Your task to perform on an android device: Open Google Chrome and open the bookmarks view Image 0: 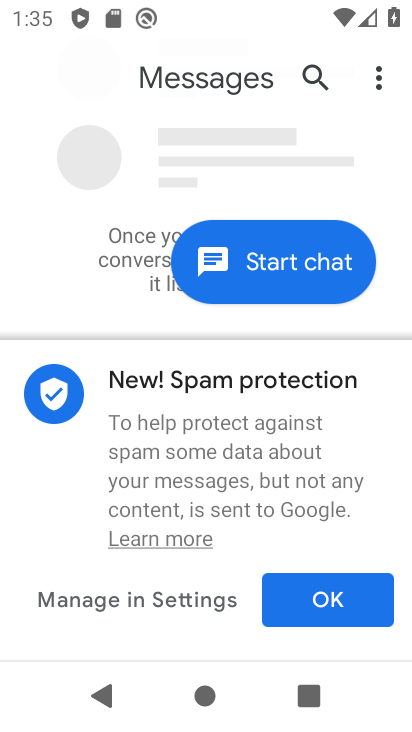
Step 0: press home button
Your task to perform on an android device: Open Google Chrome and open the bookmarks view Image 1: 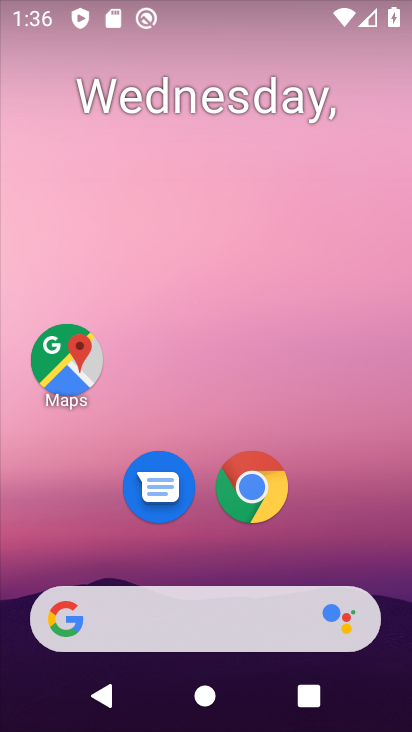
Step 1: click (247, 488)
Your task to perform on an android device: Open Google Chrome and open the bookmarks view Image 2: 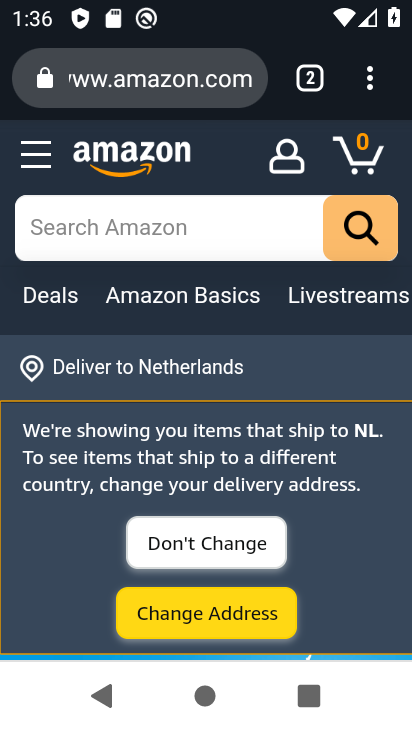
Step 2: click (369, 83)
Your task to perform on an android device: Open Google Chrome and open the bookmarks view Image 3: 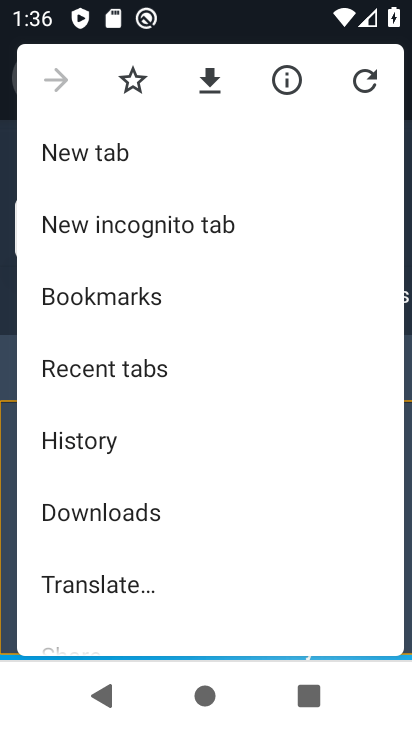
Step 3: click (104, 292)
Your task to perform on an android device: Open Google Chrome and open the bookmarks view Image 4: 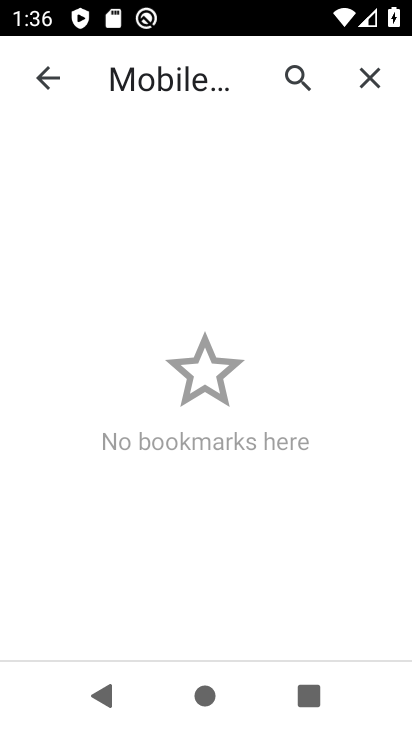
Step 4: task complete